Your task to perform on an android device: Go to accessibility settings Image 0: 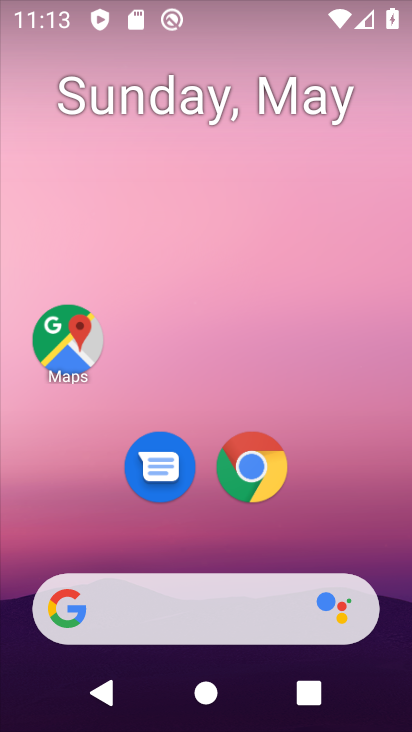
Step 0: drag from (182, 478) to (175, 126)
Your task to perform on an android device: Go to accessibility settings Image 1: 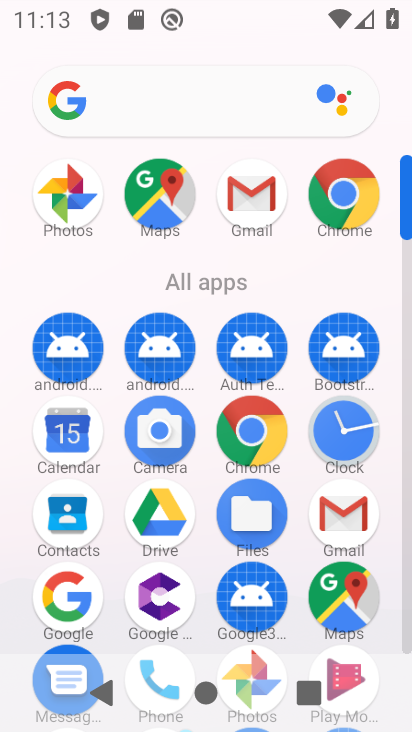
Step 1: drag from (204, 488) to (215, 187)
Your task to perform on an android device: Go to accessibility settings Image 2: 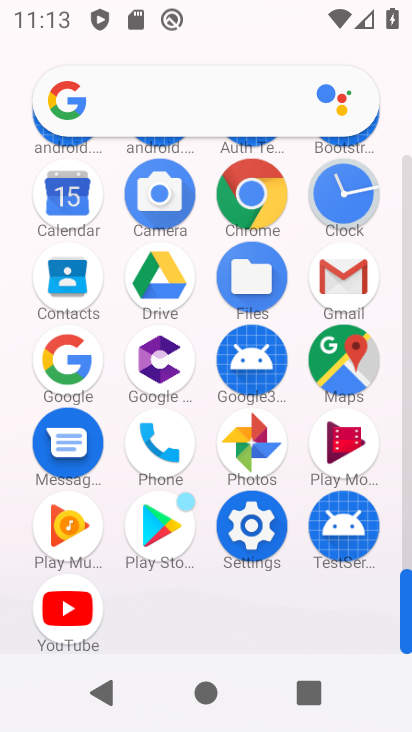
Step 2: click (250, 522)
Your task to perform on an android device: Go to accessibility settings Image 3: 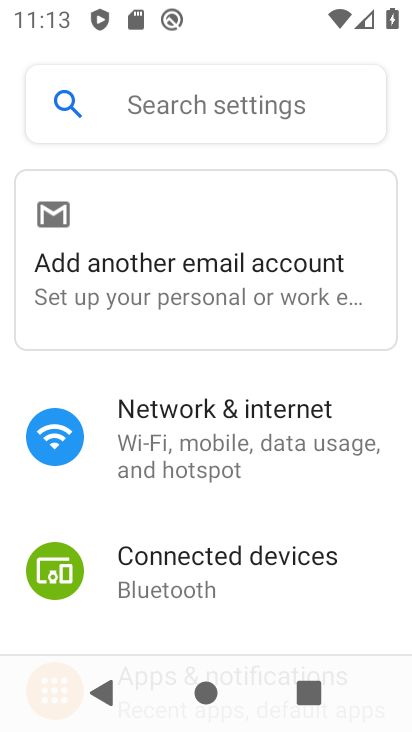
Step 3: drag from (267, 513) to (276, 159)
Your task to perform on an android device: Go to accessibility settings Image 4: 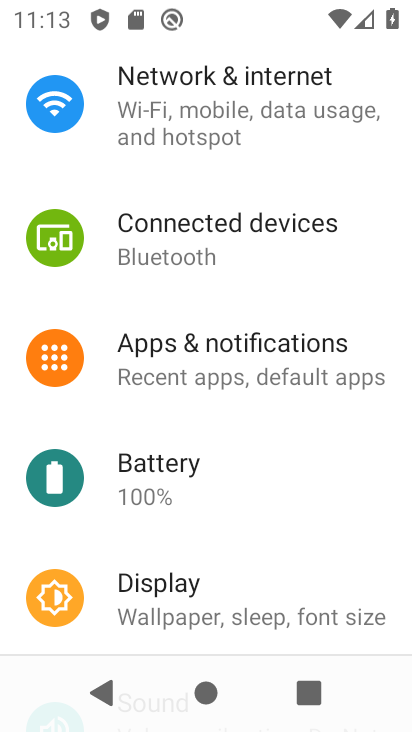
Step 4: drag from (278, 460) to (299, 238)
Your task to perform on an android device: Go to accessibility settings Image 5: 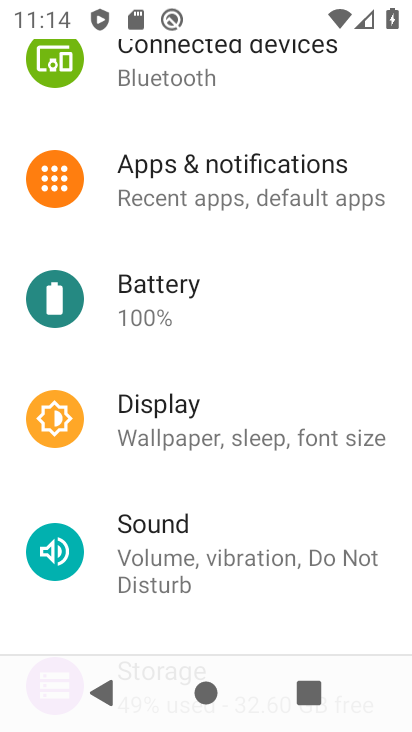
Step 5: drag from (284, 608) to (310, 213)
Your task to perform on an android device: Go to accessibility settings Image 6: 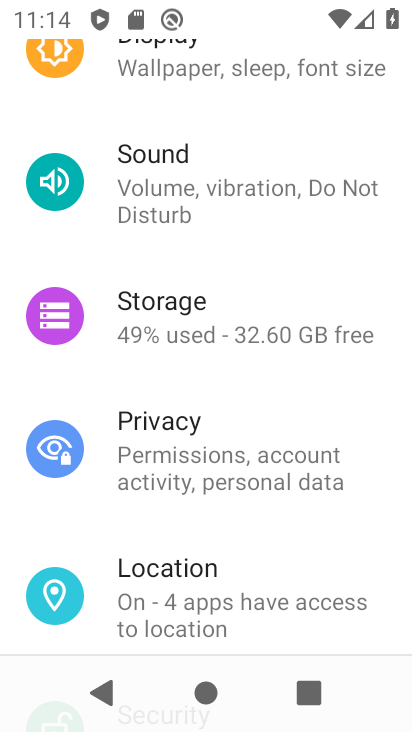
Step 6: drag from (282, 553) to (323, 569)
Your task to perform on an android device: Go to accessibility settings Image 7: 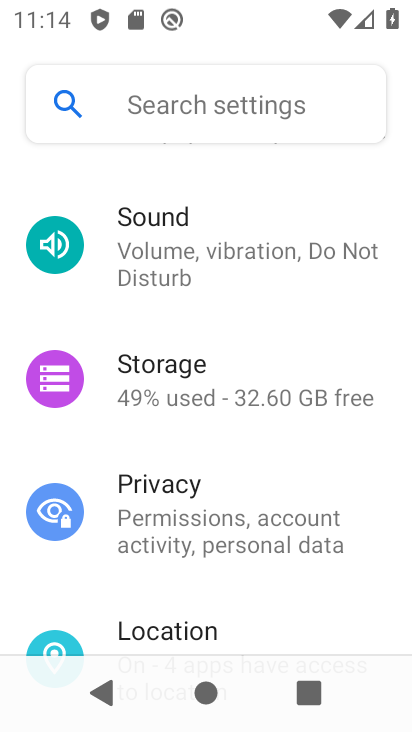
Step 7: drag from (287, 334) to (282, 537)
Your task to perform on an android device: Go to accessibility settings Image 8: 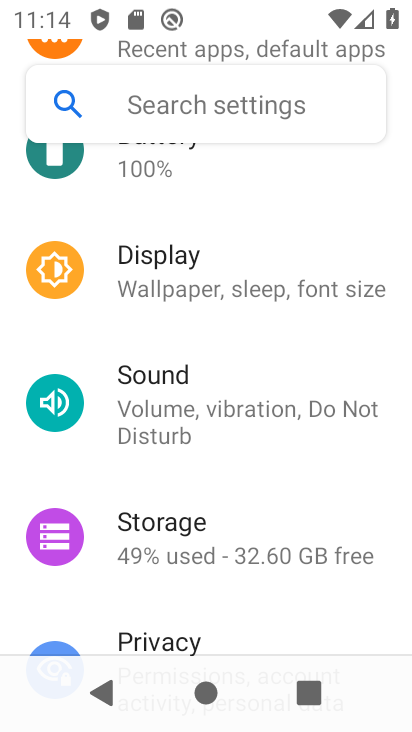
Step 8: drag from (216, 236) to (223, 554)
Your task to perform on an android device: Go to accessibility settings Image 9: 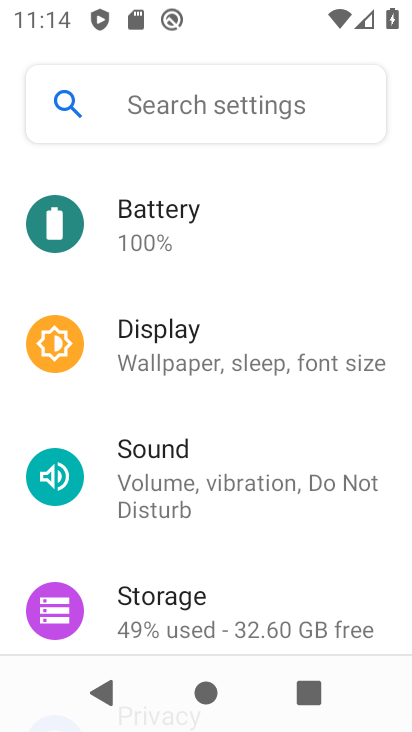
Step 9: drag from (231, 244) to (278, 543)
Your task to perform on an android device: Go to accessibility settings Image 10: 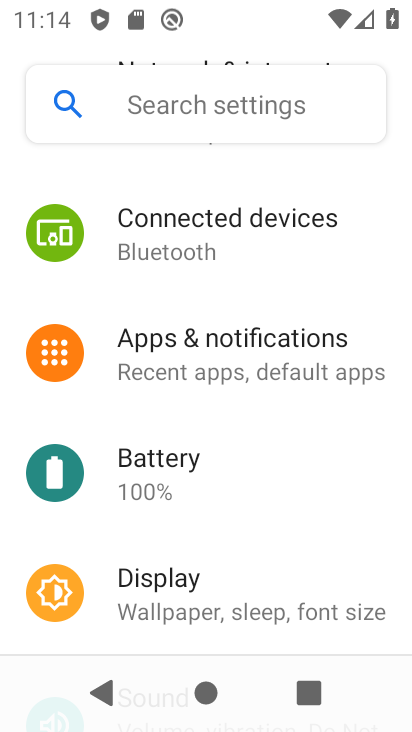
Step 10: drag from (261, 182) to (263, 476)
Your task to perform on an android device: Go to accessibility settings Image 11: 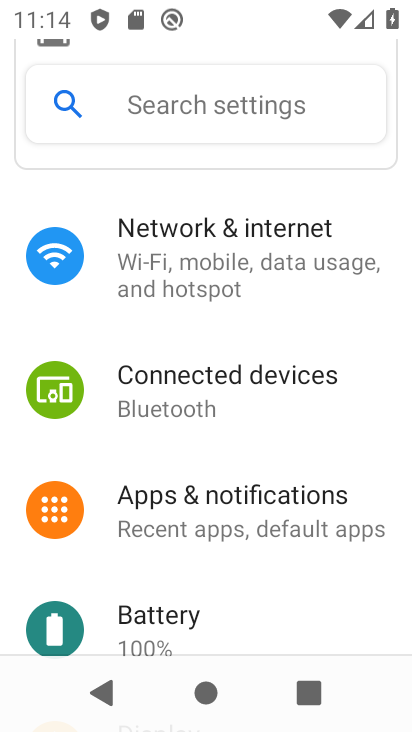
Step 11: drag from (162, 418) to (175, 206)
Your task to perform on an android device: Go to accessibility settings Image 12: 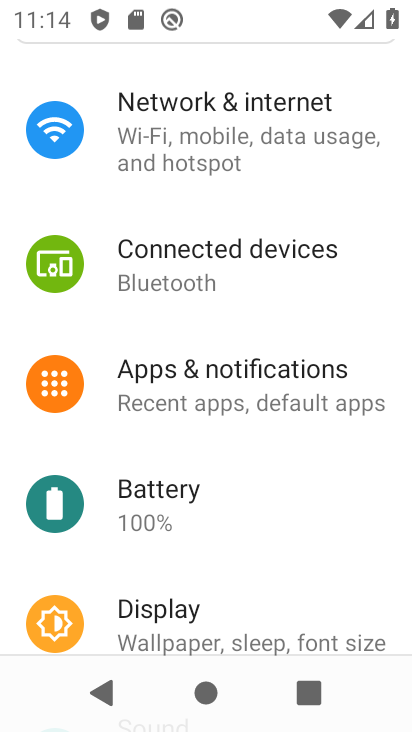
Step 12: drag from (251, 564) to (276, 382)
Your task to perform on an android device: Go to accessibility settings Image 13: 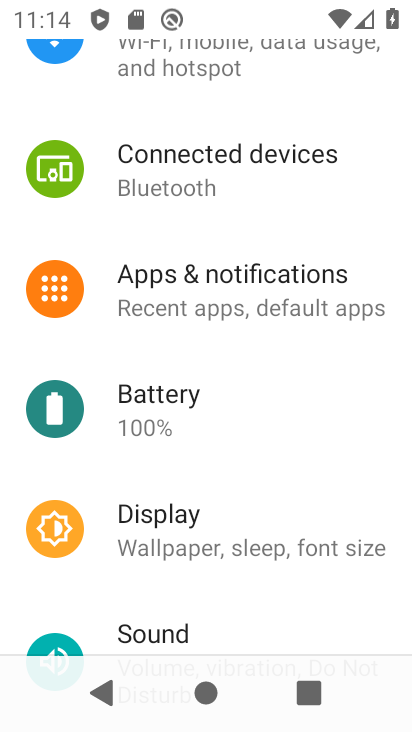
Step 13: drag from (205, 597) to (225, 238)
Your task to perform on an android device: Go to accessibility settings Image 14: 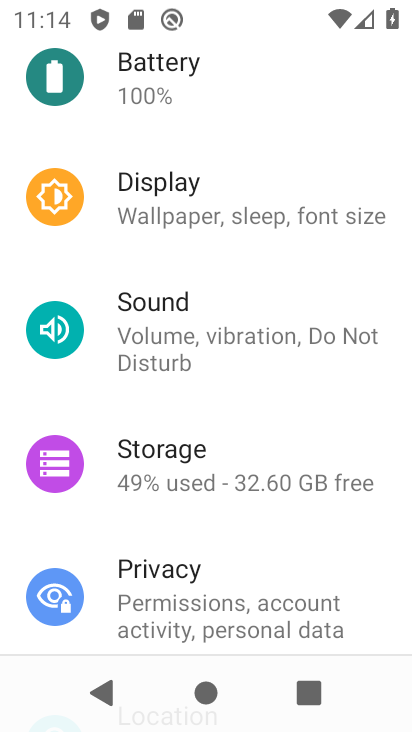
Step 14: drag from (255, 541) to (259, 348)
Your task to perform on an android device: Go to accessibility settings Image 15: 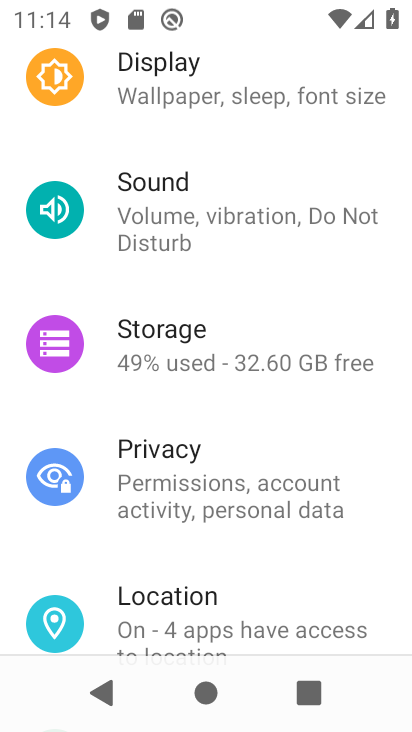
Step 15: drag from (244, 572) to (244, 332)
Your task to perform on an android device: Go to accessibility settings Image 16: 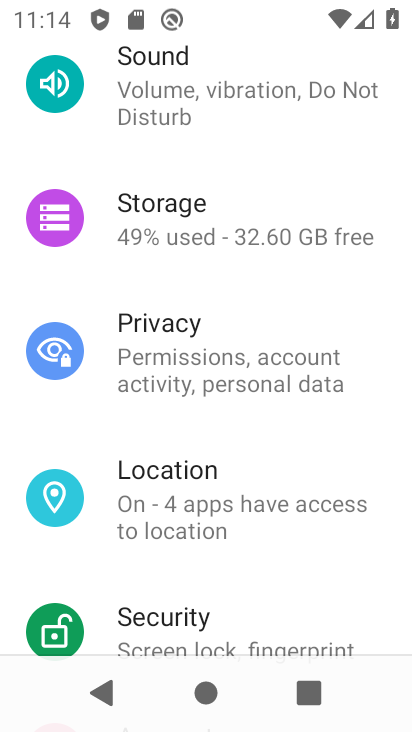
Step 16: drag from (286, 324) to (296, 288)
Your task to perform on an android device: Go to accessibility settings Image 17: 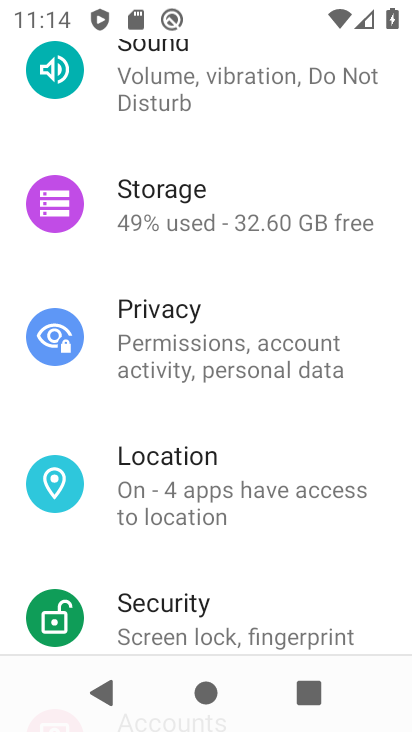
Step 17: drag from (278, 500) to (284, 183)
Your task to perform on an android device: Go to accessibility settings Image 18: 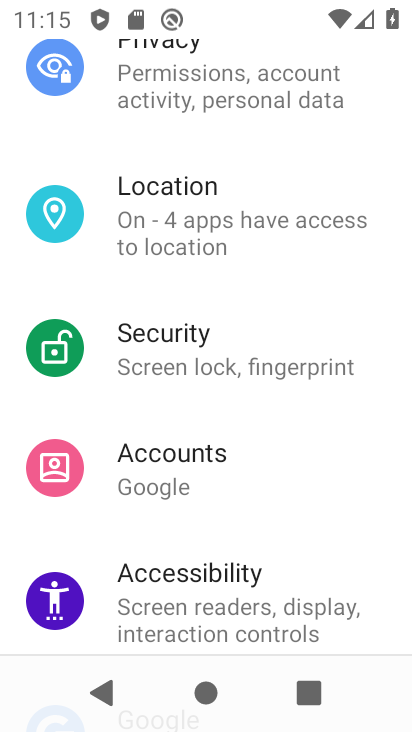
Step 18: click (238, 592)
Your task to perform on an android device: Go to accessibility settings Image 19: 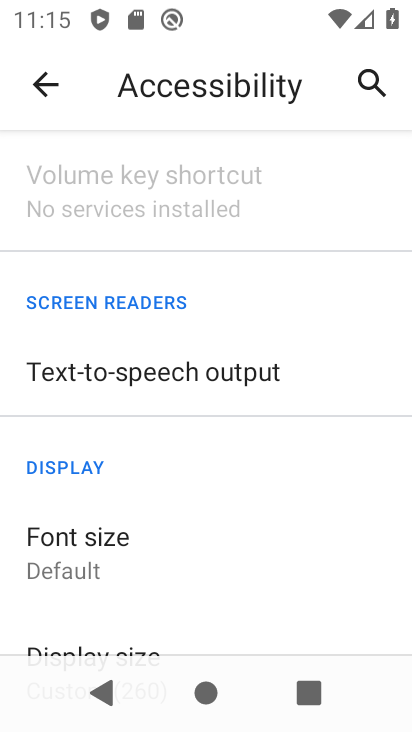
Step 19: task complete